Your task to perform on an android device: turn on bluetooth scan Image 0: 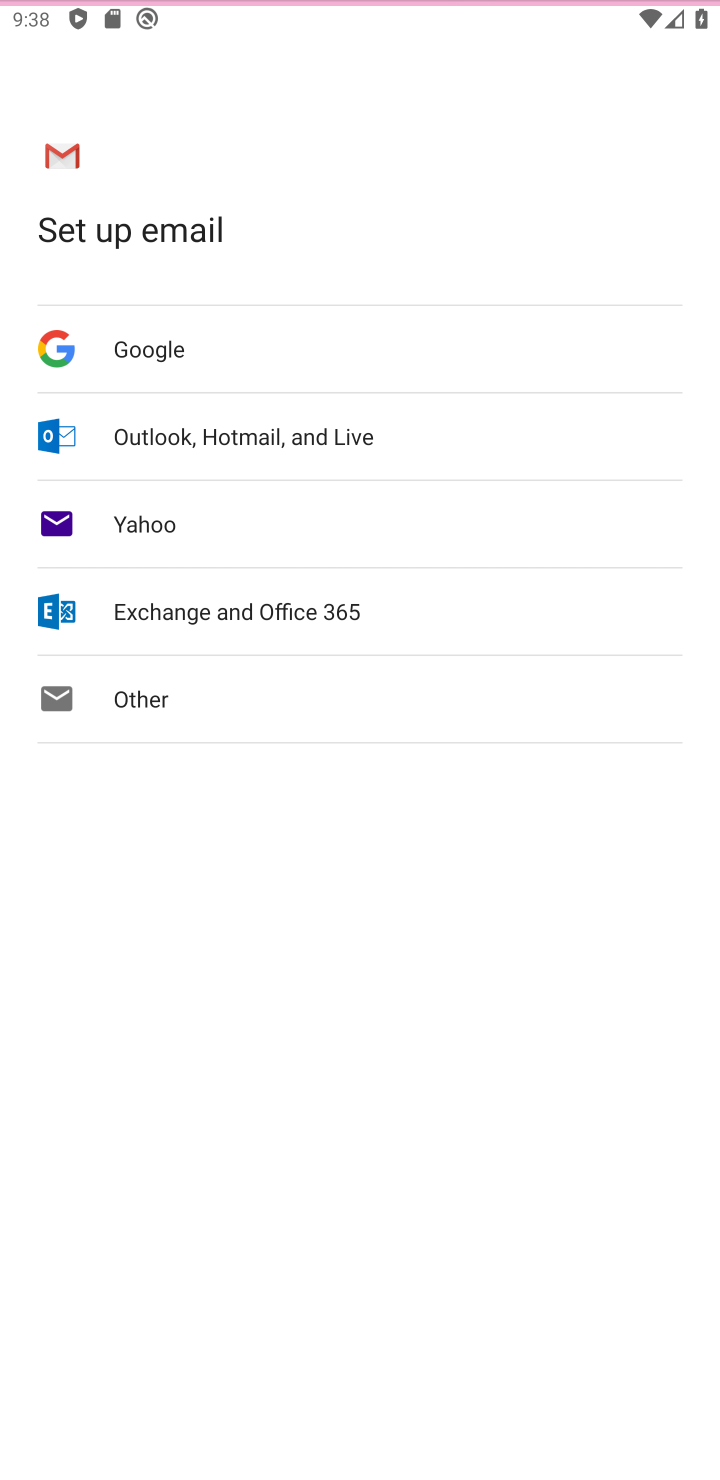
Step 0: press home button
Your task to perform on an android device: turn on bluetooth scan Image 1: 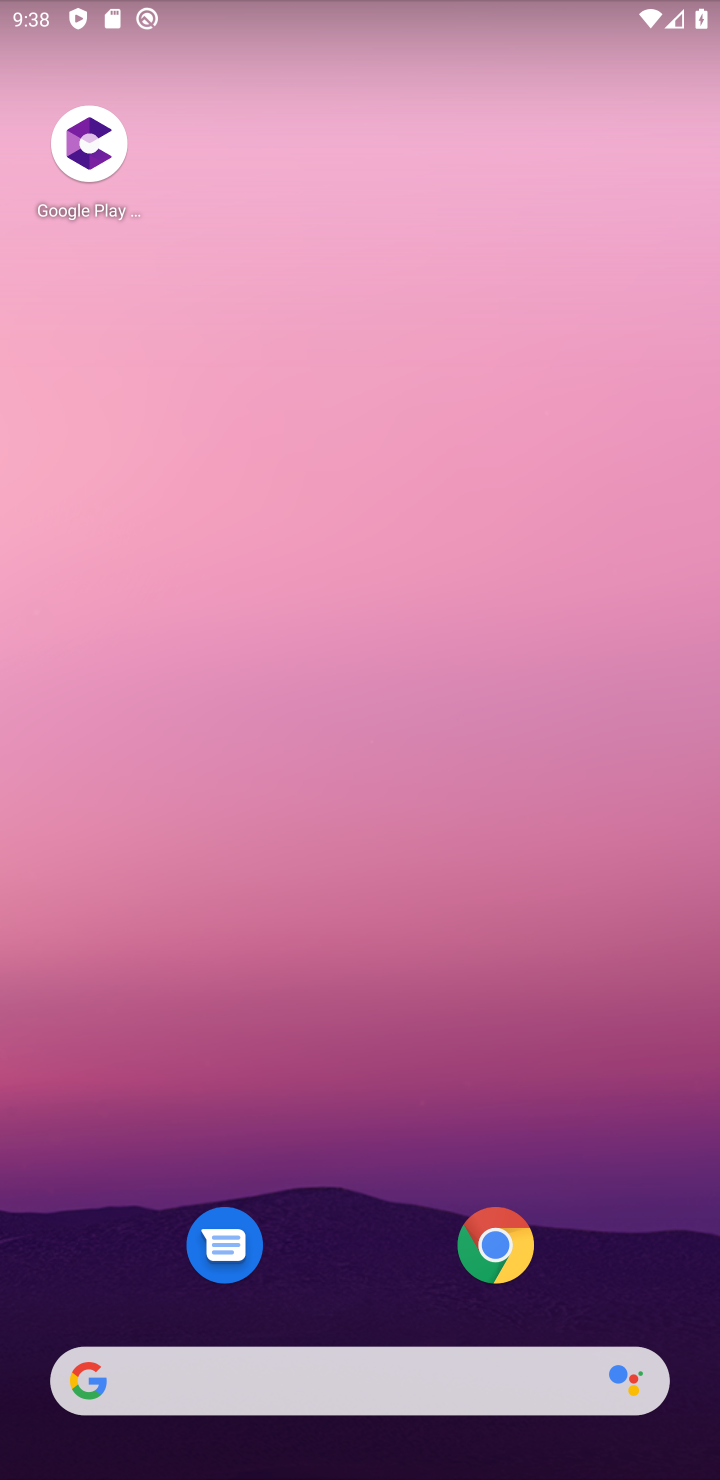
Step 1: drag from (380, 1078) to (357, 63)
Your task to perform on an android device: turn on bluetooth scan Image 2: 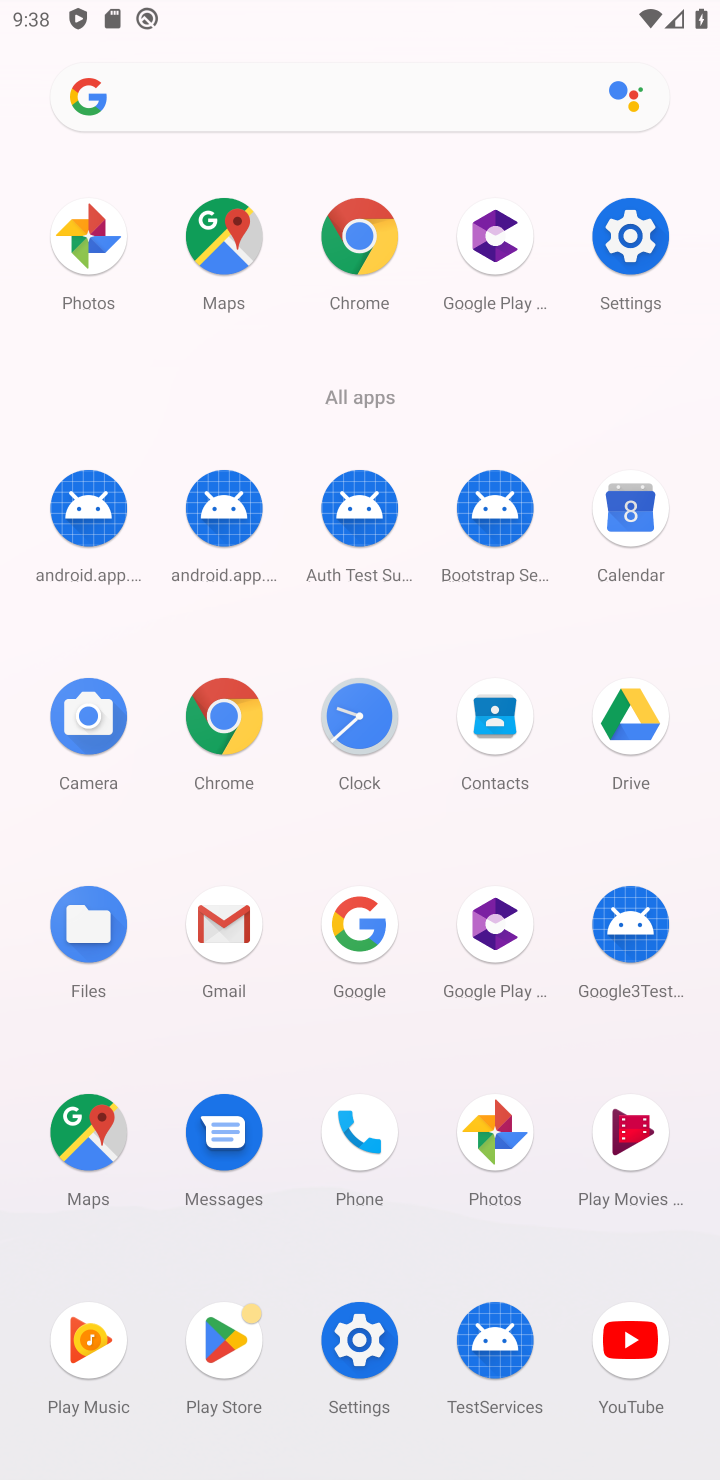
Step 2: click (634, 235)
Your task to perform on an android device: turn on bluetooth scan Image 3: 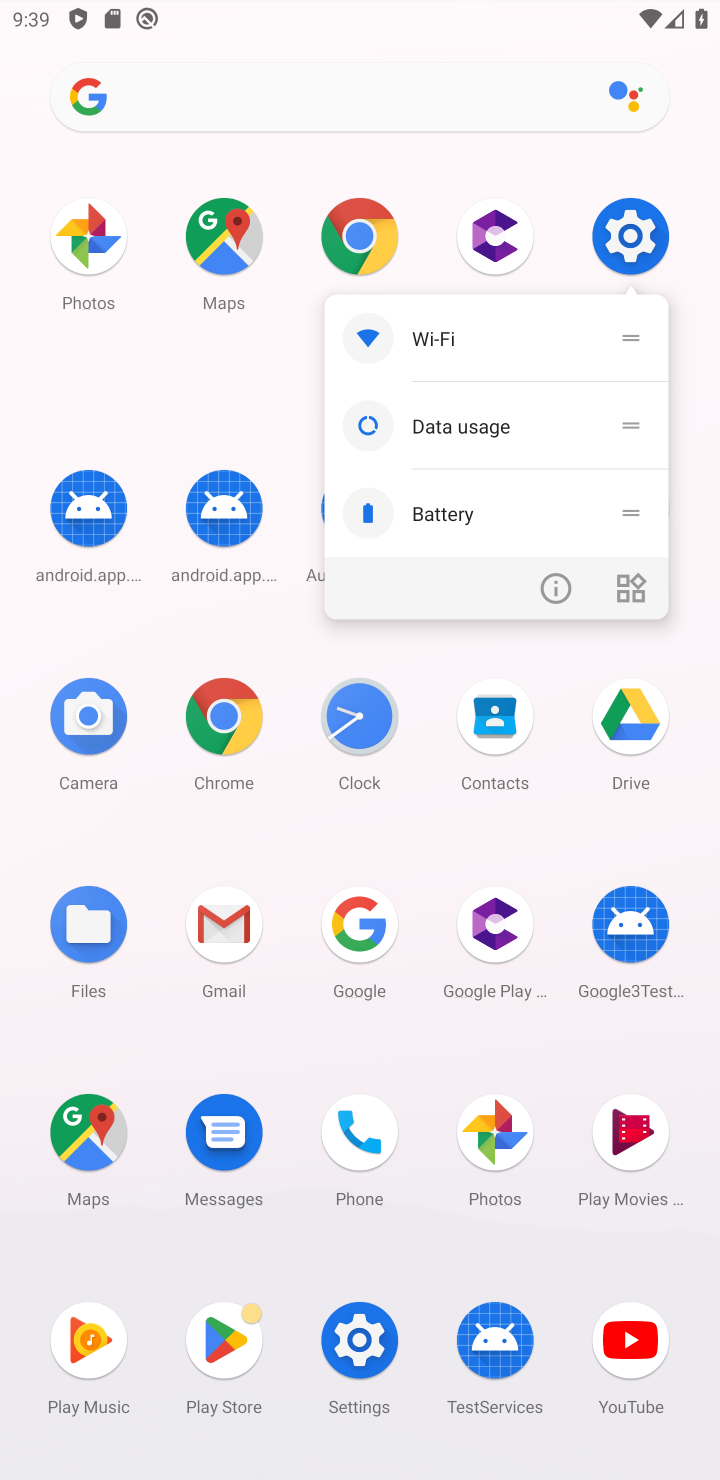
Step 3: click (635, 239)
Your task to perform on an android device: turn on bluetooth scan Image 4: 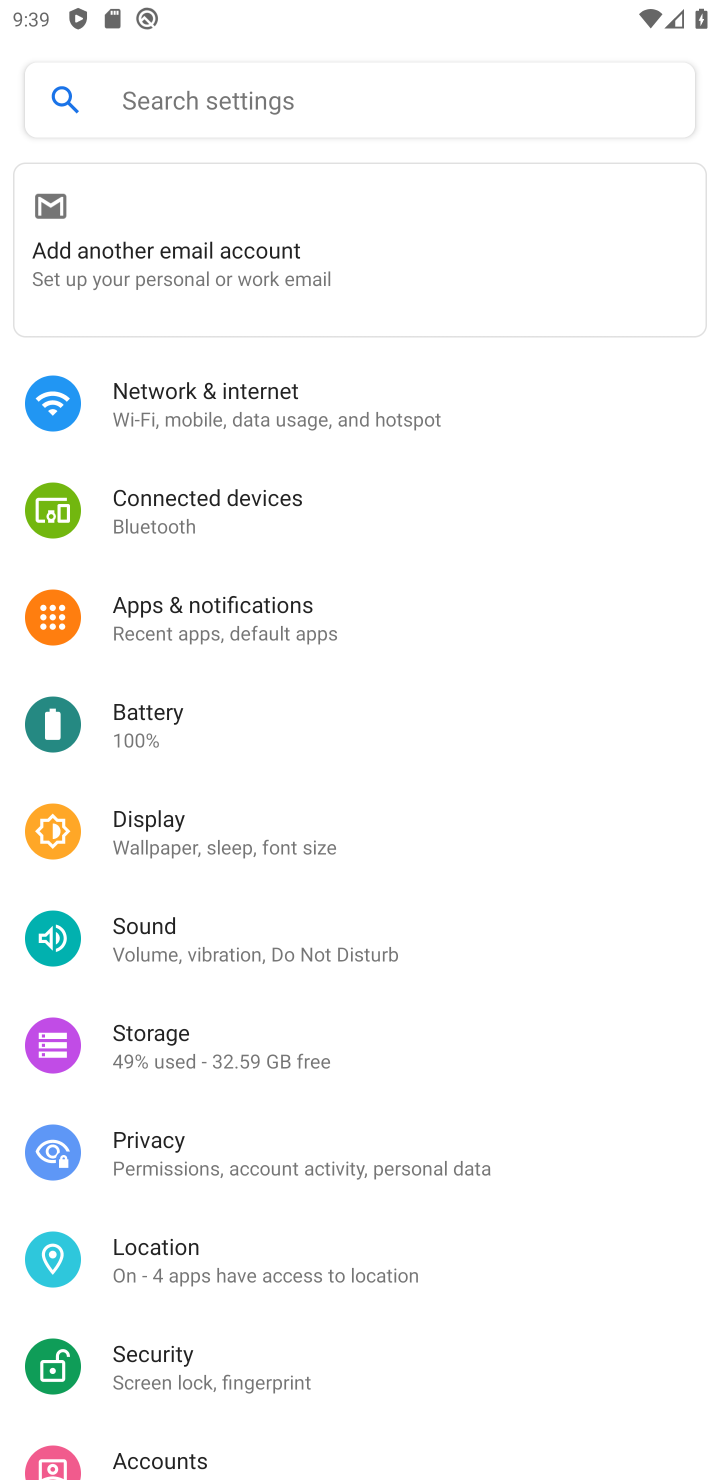
Step 4: click (166, 1247)
Your task to perform on an android device: turn on bluetooth scan Image 5: 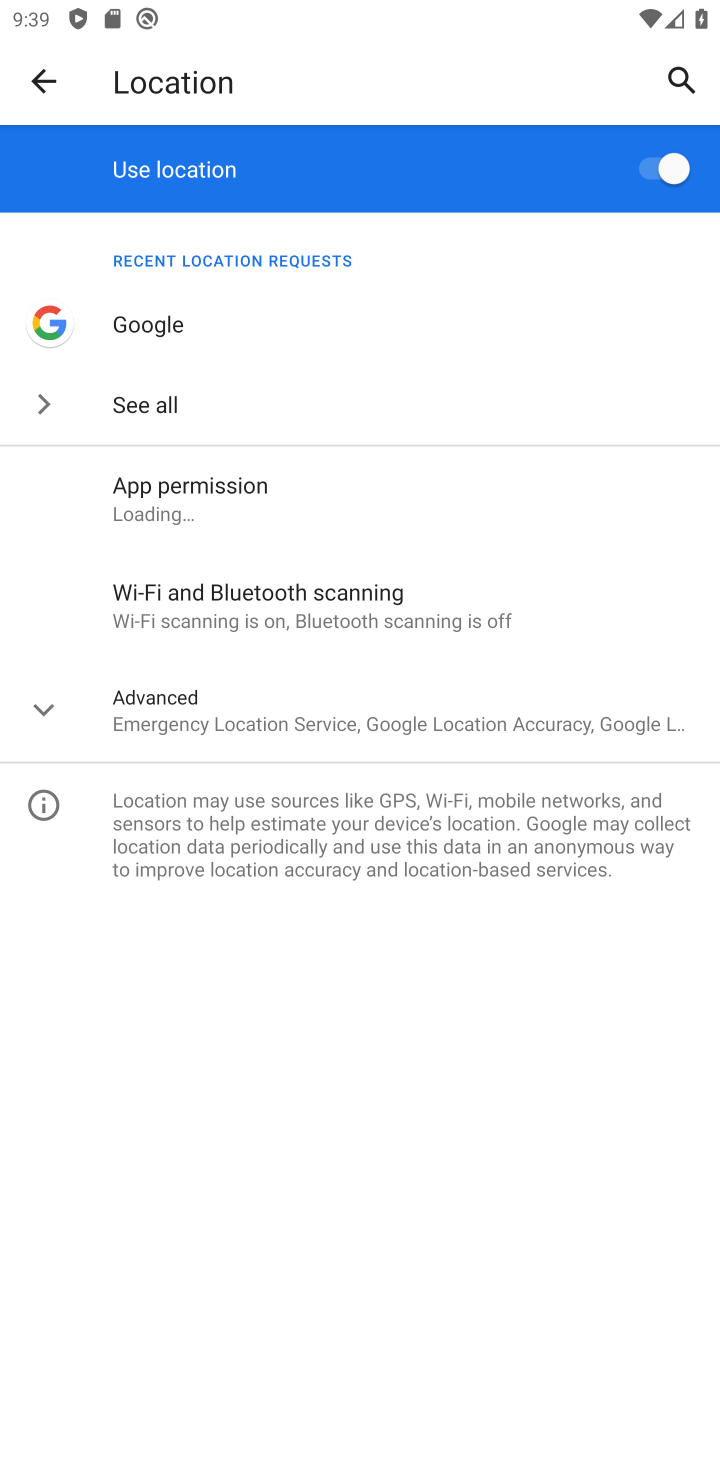
Step 5: click (151, 694)
Your task to perform on an android device: turn on bluetooth scan Image 6: 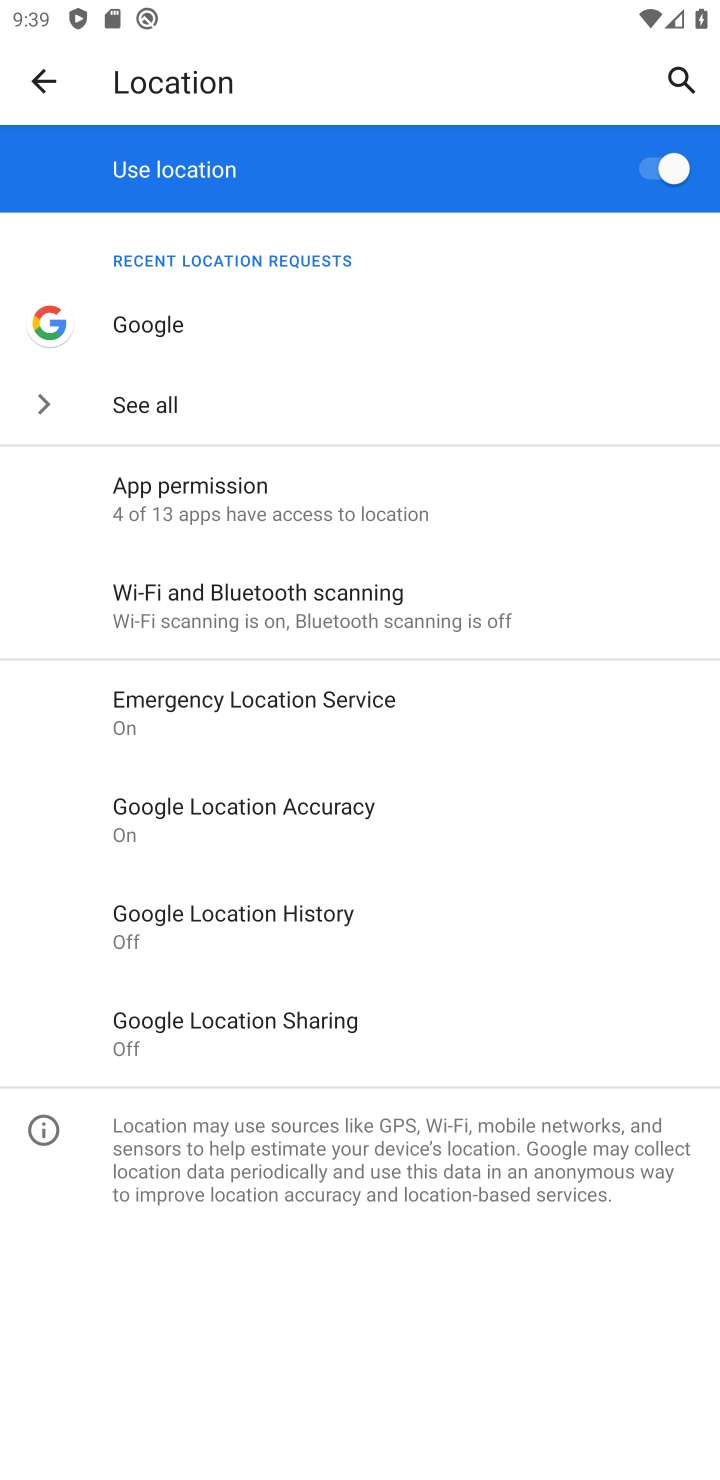
Step 6: click (292, 594)
Your task to perform on an android device: turn on bluetooth scan Image 7: 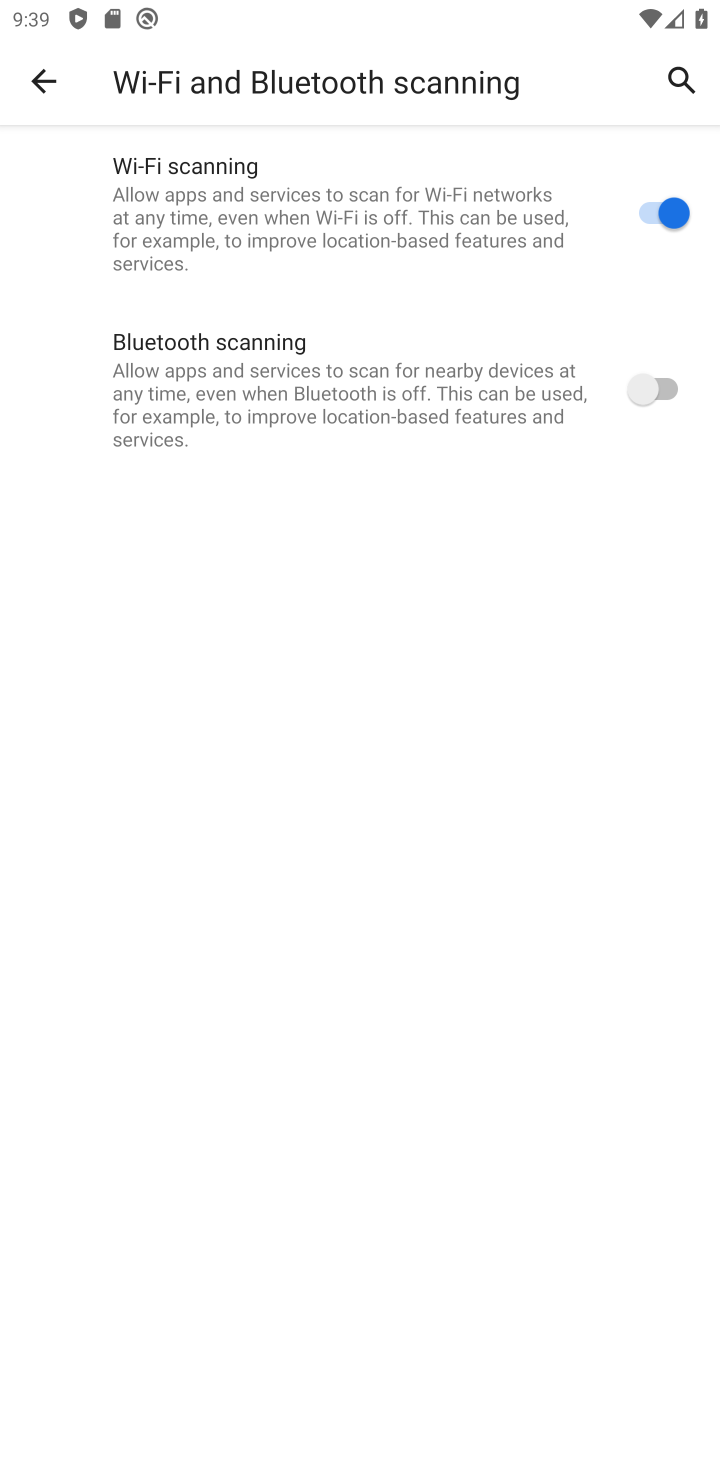
Step 7: click (639, 386)
Your task to perform on an android device: turn on bluetooth scan Image 8: 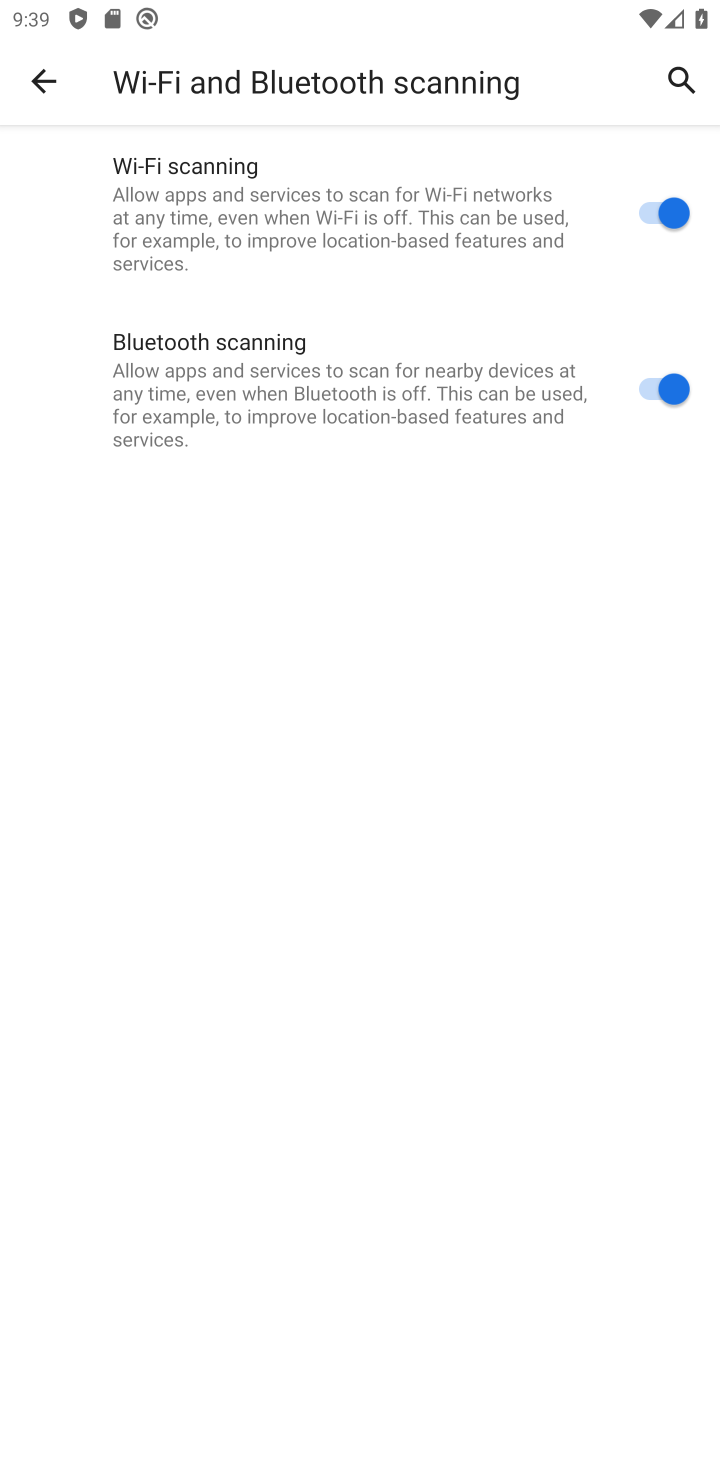
Step 8: task complete